Your task to perform on an android device: Go to Wikipedia Image 0: 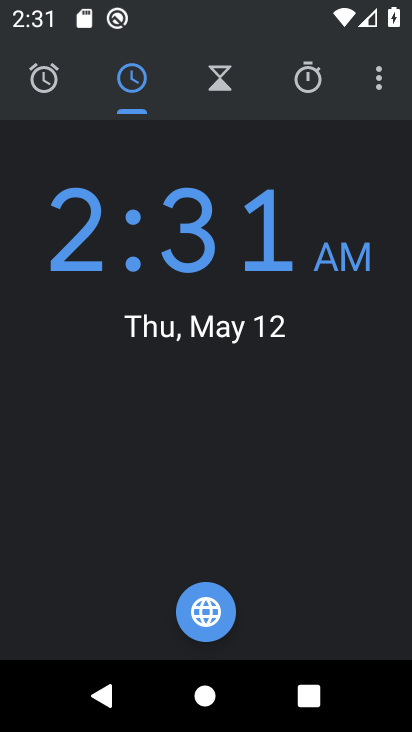
Step 0: press home button
Your task to perform on an android device: Go to Wikipedia Image 1: 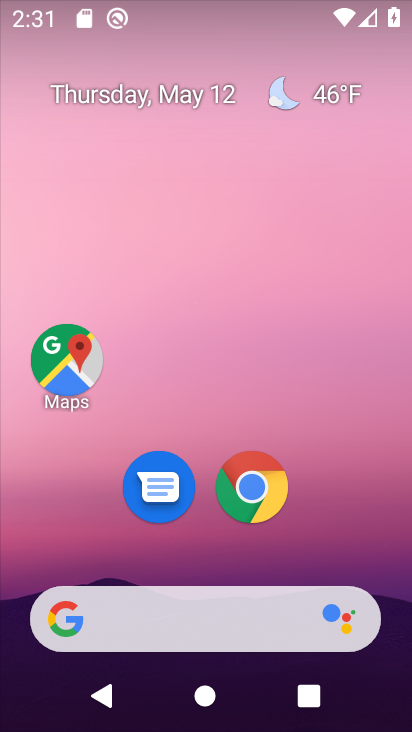
Step 1: click (250, 492)
Your task to perform on an android device: Go to Wikipedia Image 2: 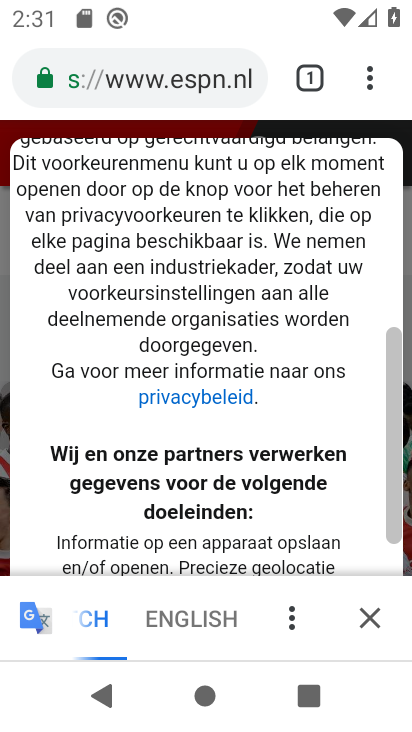
Step 2: click (98, 71)
Your task to perform on an android device: Go to Wikipedia Image 3: 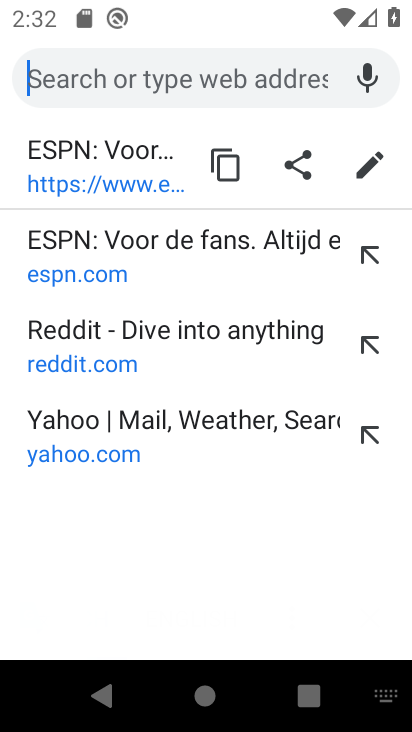
Step 3: type "wikipedia"
Your task to perform on an android device: Go to Wikipedia Image 4: 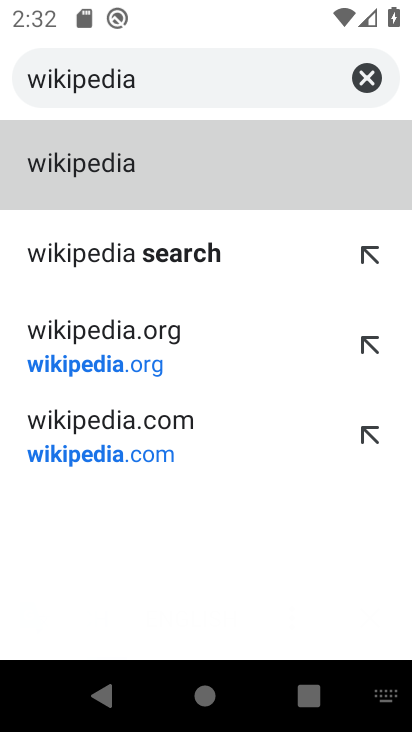
Step 4: click (55, 171)
Your task to perform on an android device: Go to Wikipedia Image 5: 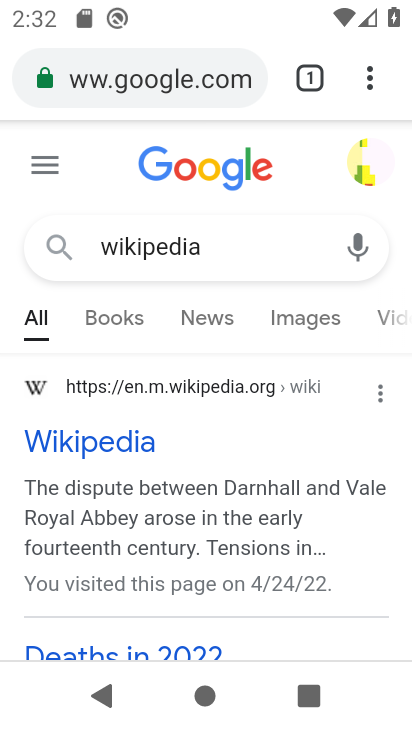
Step 5: click (50, 441)
Your task to perform on an android device: Go to Wikipedia Image 6: 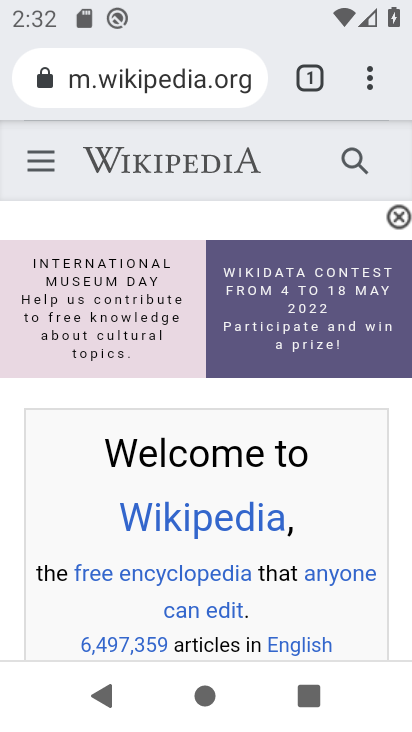
Step 6: task complete